Your task to perform on an android device: What's the weather? Image 0: 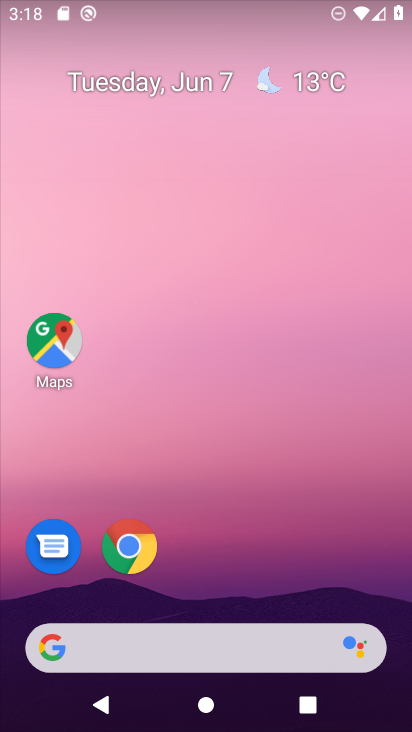
Step 0: click (197, 641)
Your task to perform on an android device: What's the weather? Image 1: 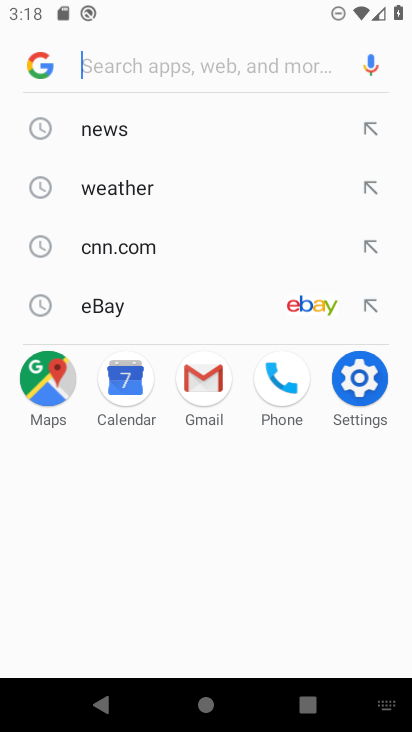
Step 1: click (117, 187)
Your task to perform on an android device: What's the weather? Image 2: 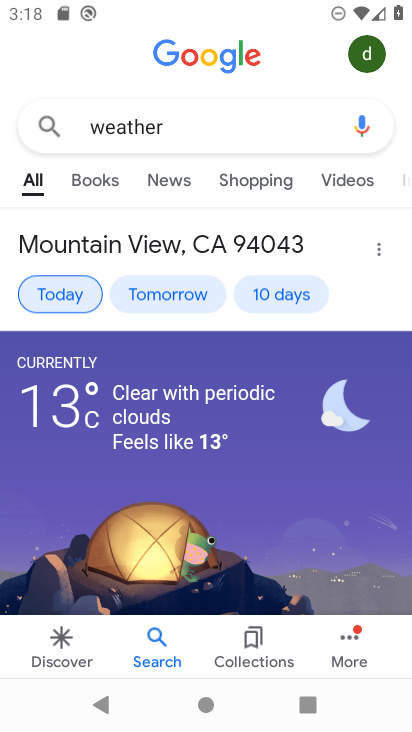
Step 2: task complete